Your task to perform on an android device: install app "Google Play Music" Image 0: 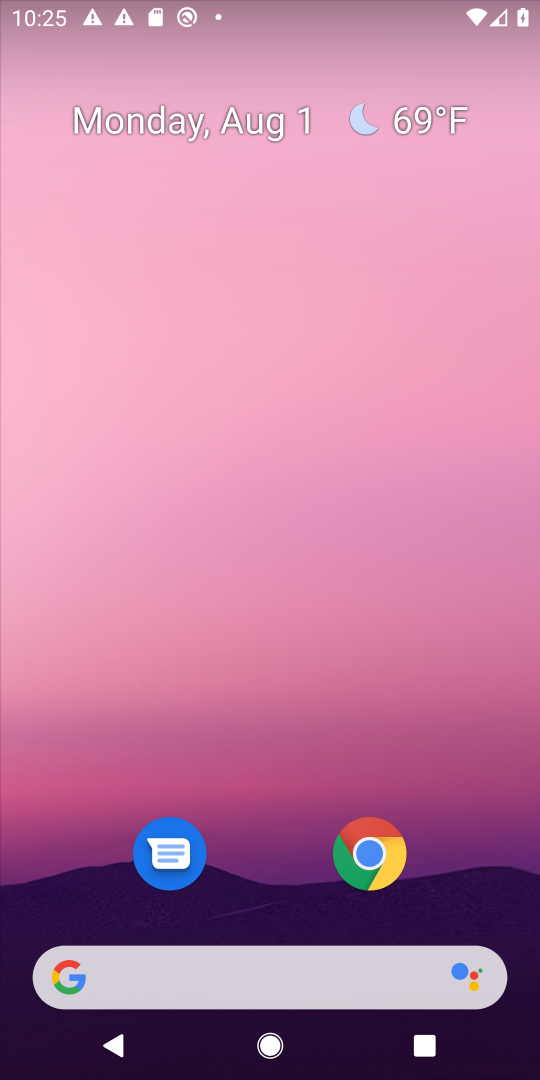
Step 0: drag from (250, 866) to (342, 78)
Your task to perform on an android device: install app "Google Play Music" Image 1: 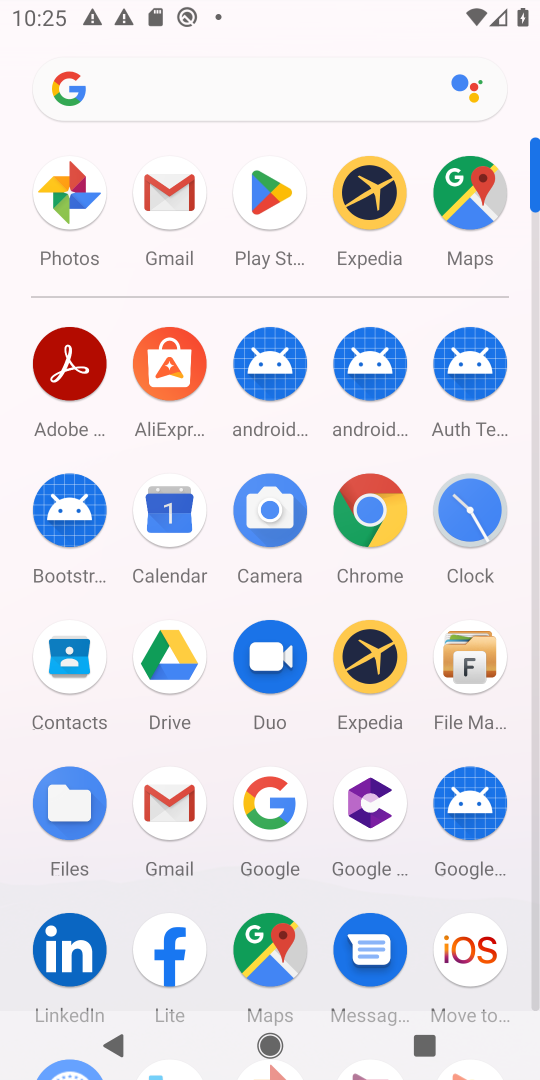
Step 1: drag from (230, 1012) to (327, 332)
Your task to perform on an android device: install app "Google Play Music" Image 2: 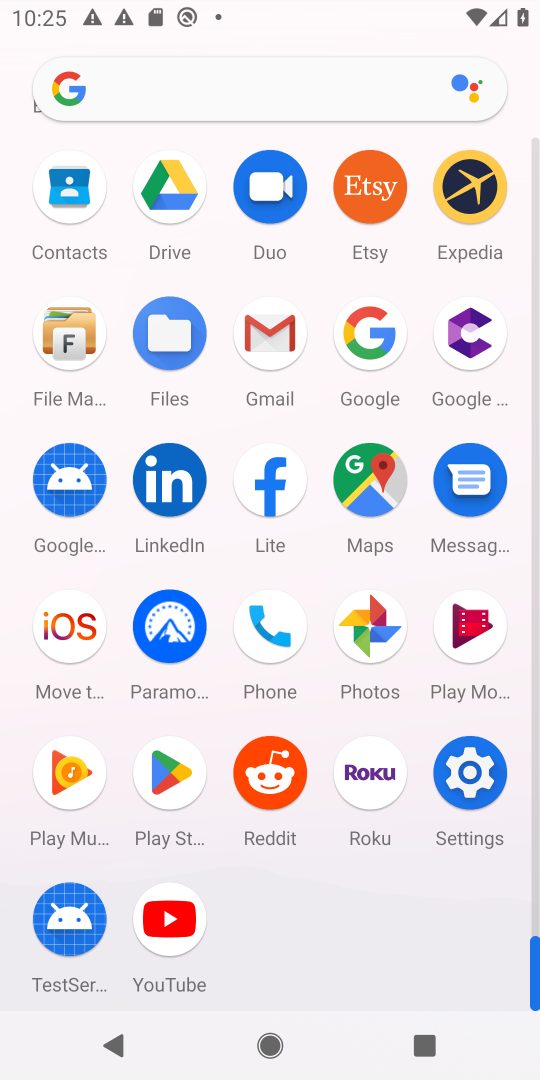
Step 2: click (151, 781)
Your task to perform on an android device: install app "Google Play Music" Image 3: 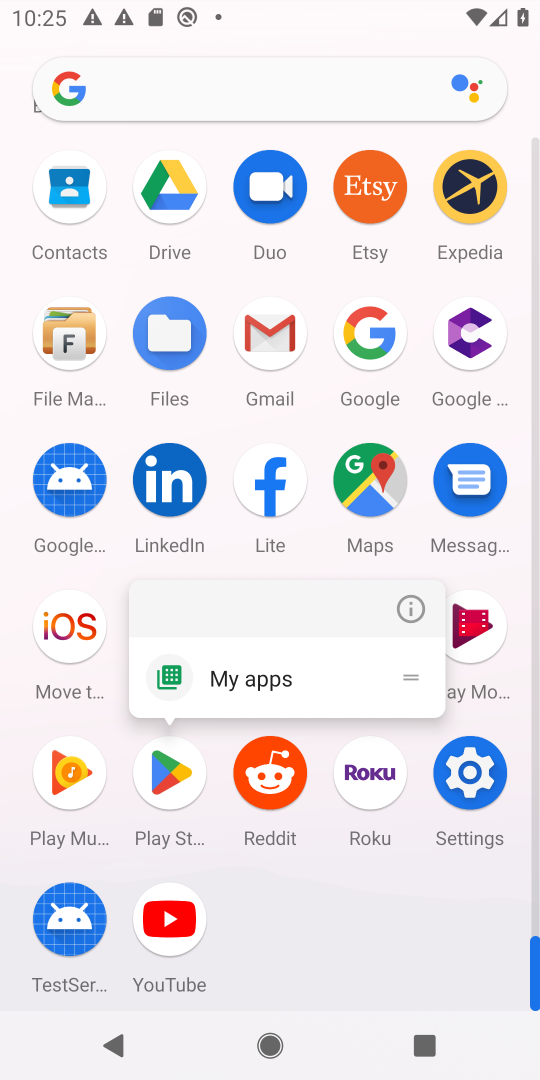
Step 3: click (399, 603)
Your task to perform on an android device: install app "Google Play Music" Image 4: 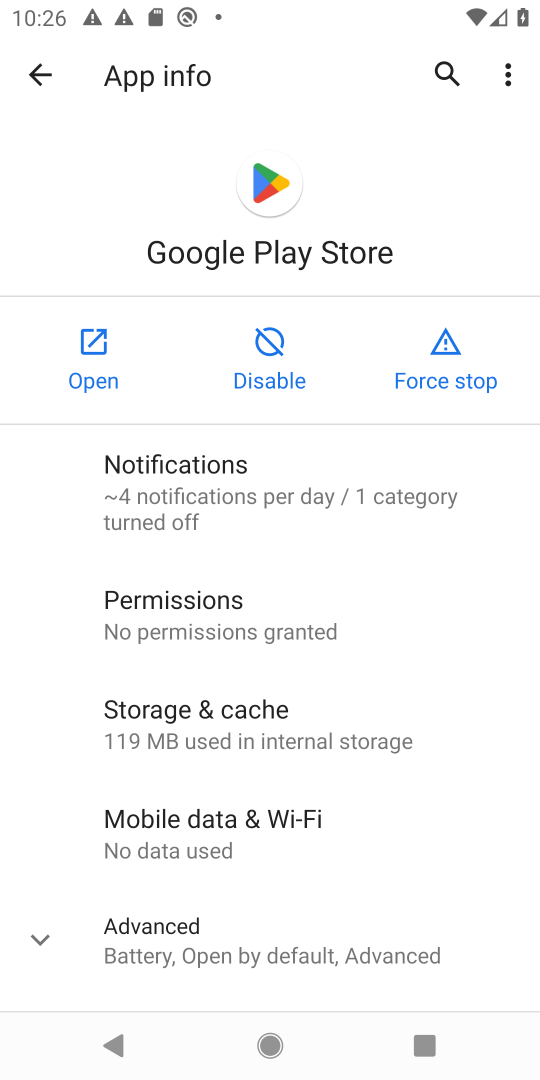
Step 4: click (81, 352)
Your task to perform on an android device: install app "Google Play Music" Image 5: 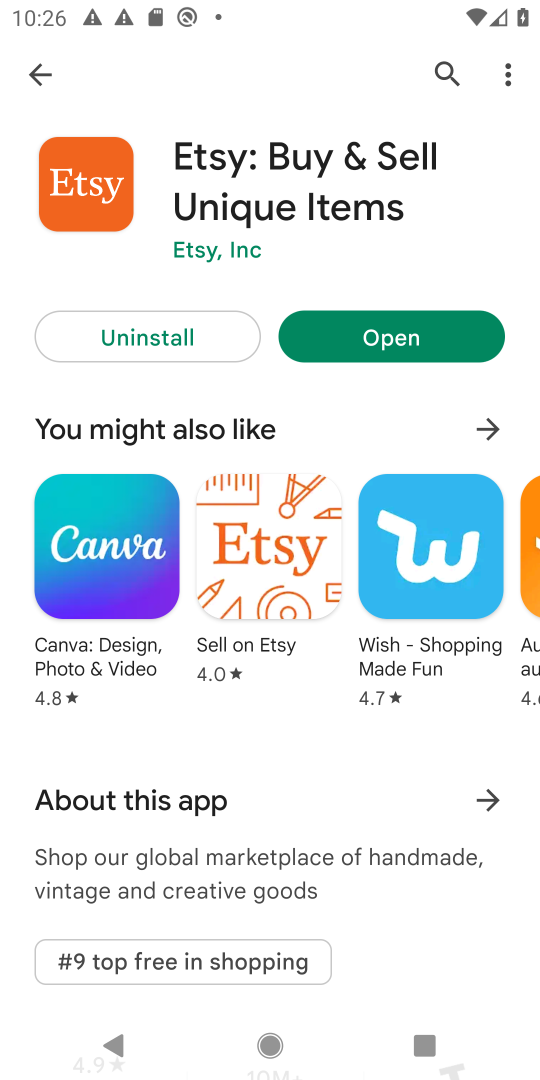
Step 5: click (453, 68)
Your task to perform on an android device: install app "Google Play Music" Image 6: 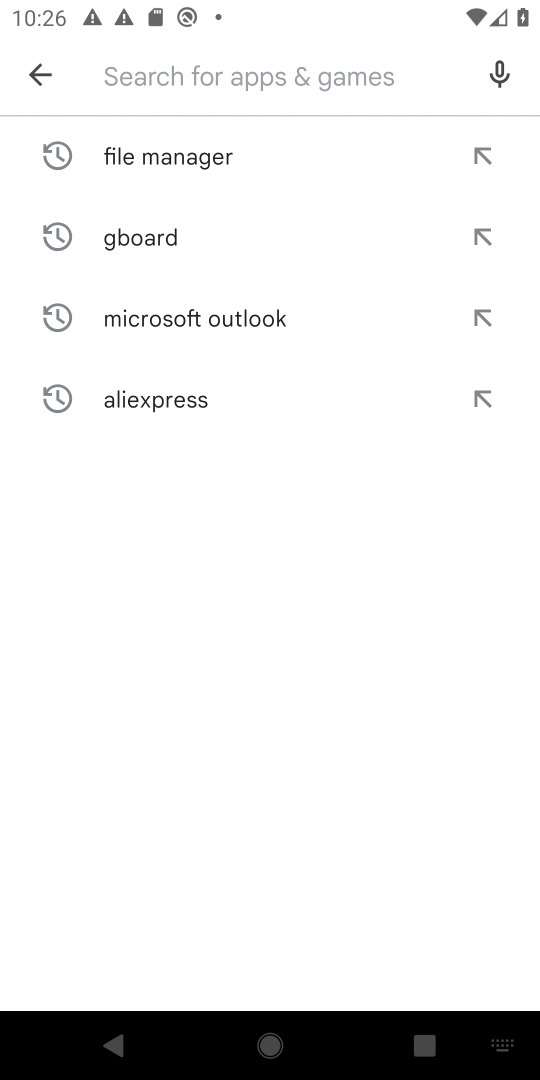
Step 6: type "Google Play Music"
Your task to perform on an android device: install app "Google Play Music" Image 7: 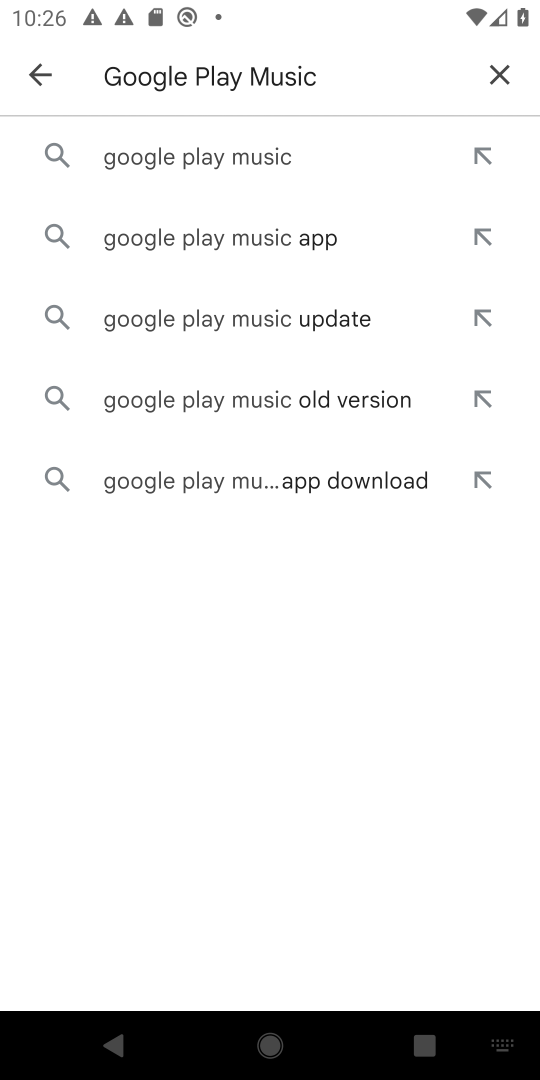
Step 7: click (157, 157)
Your task to perform on an android device: install app "Google Play Music" Image 8: 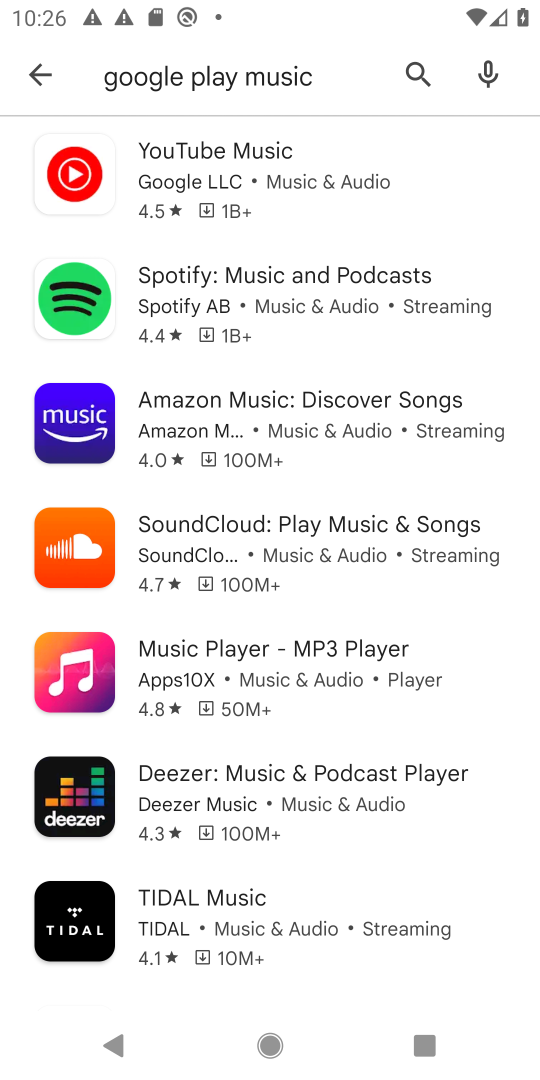
Step 8: click (255, 165)
Your task to perform on an android device: install app "Google Play Music" Image 9: 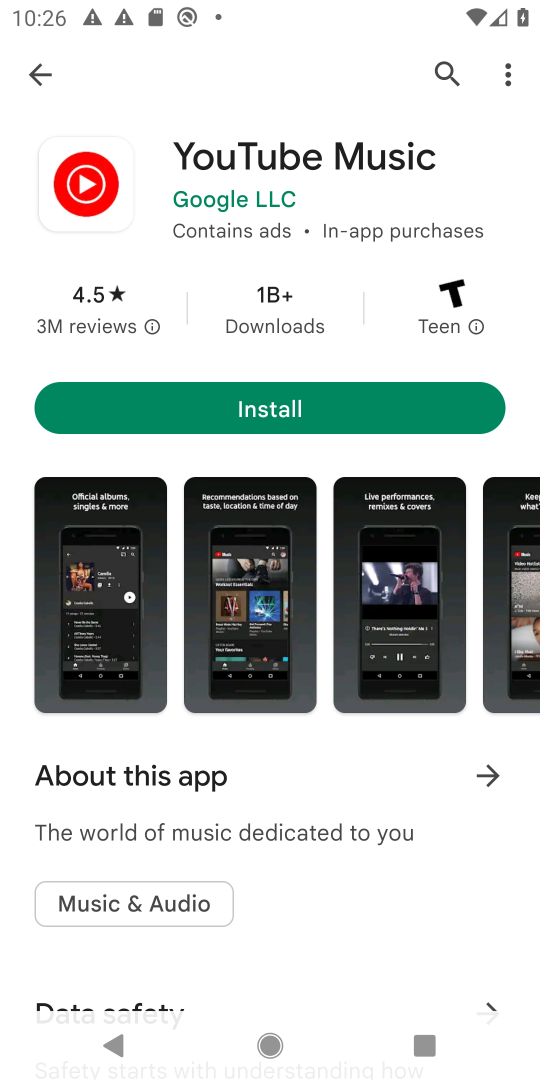
Step 9: drag from (315, 221) to (336, 836)
Your task to perform on an android device: install app "Google Play Music" Image 10: 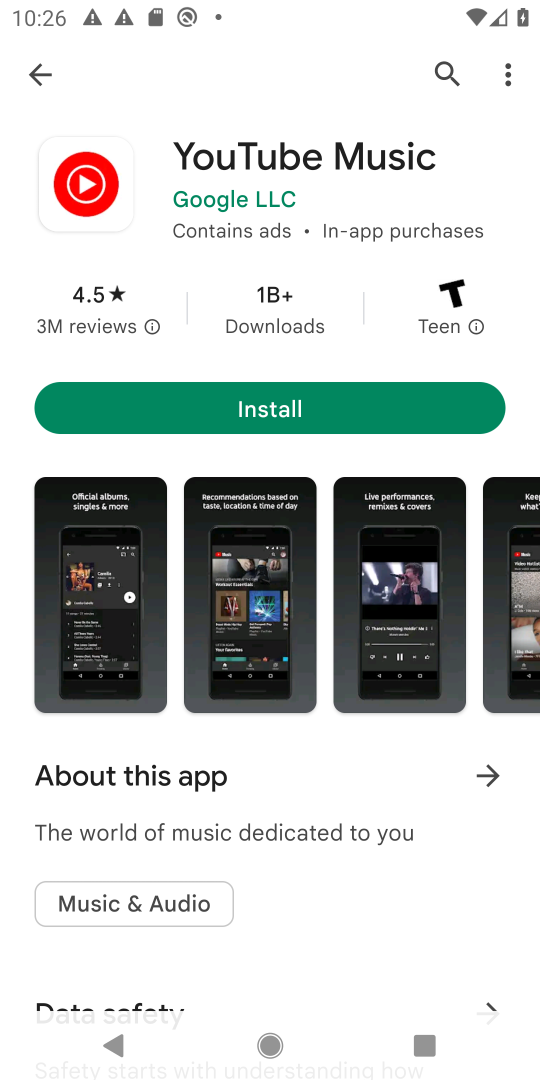
Step 10: drag from (346, 194) to (356, 715)
Your task to perform on an android device: install app "Google Play Music" Image 11: 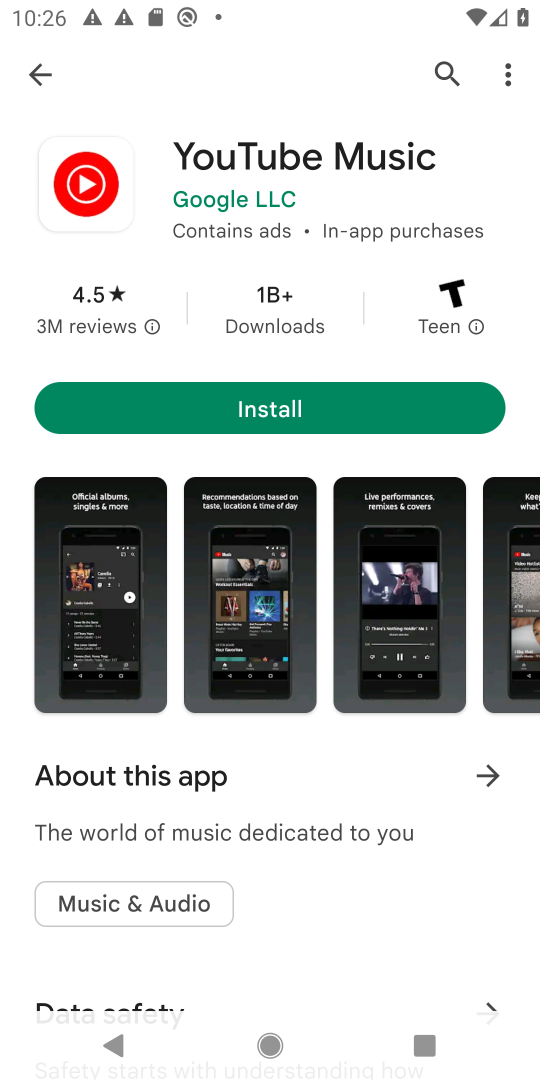
Step 11: drag from (310, 184) to (335, 845)
Your task to perform on an android device: install app "Google Play Music" Image 12: 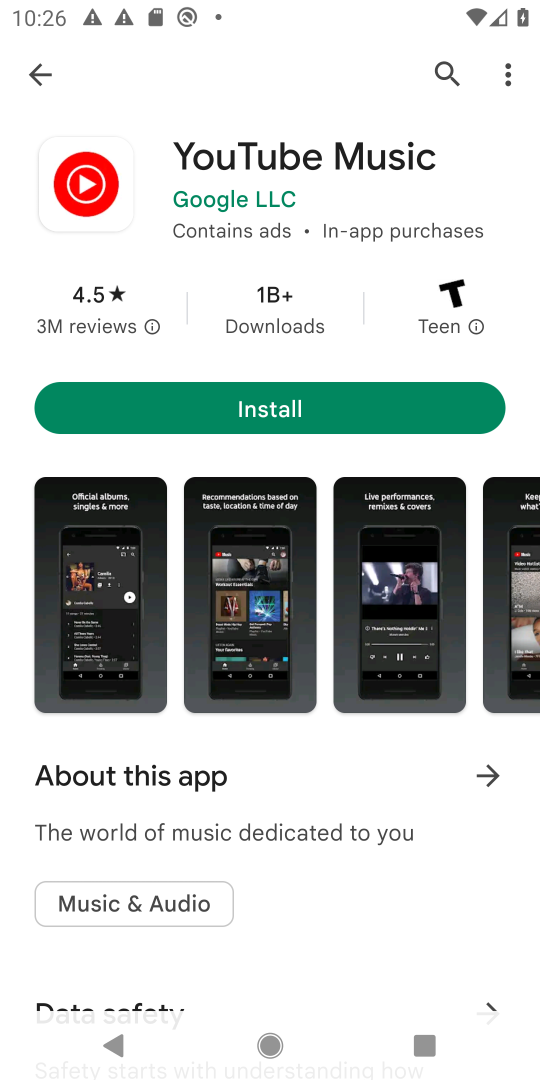
Step 12: click (441, 77)
Your task to perform on an android device: install app "Google Play Music" Image 13: 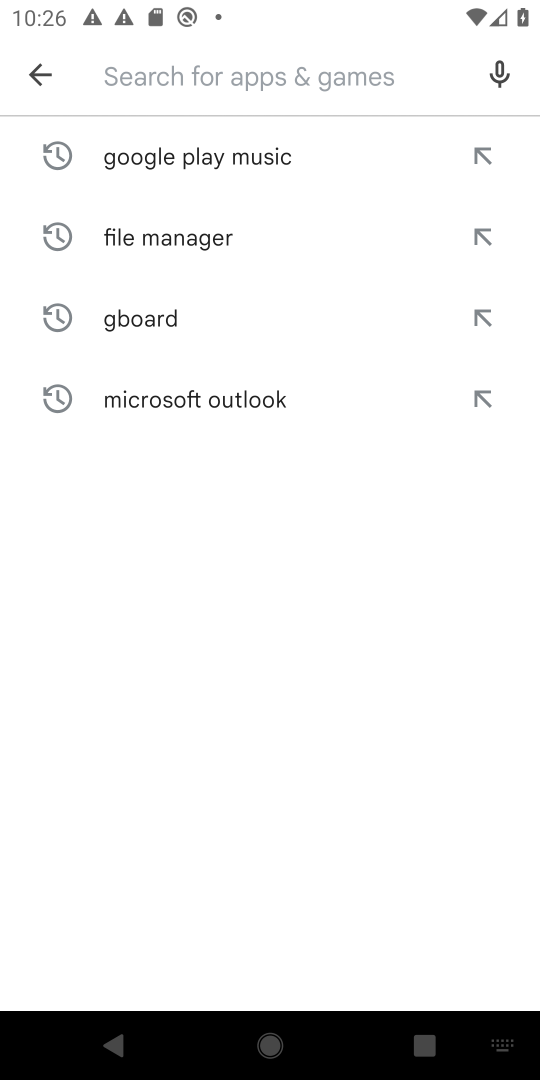
Step 13: type "Google Play Music"
Your task to perform on an android device: install app "Google Play Music" Image 14: 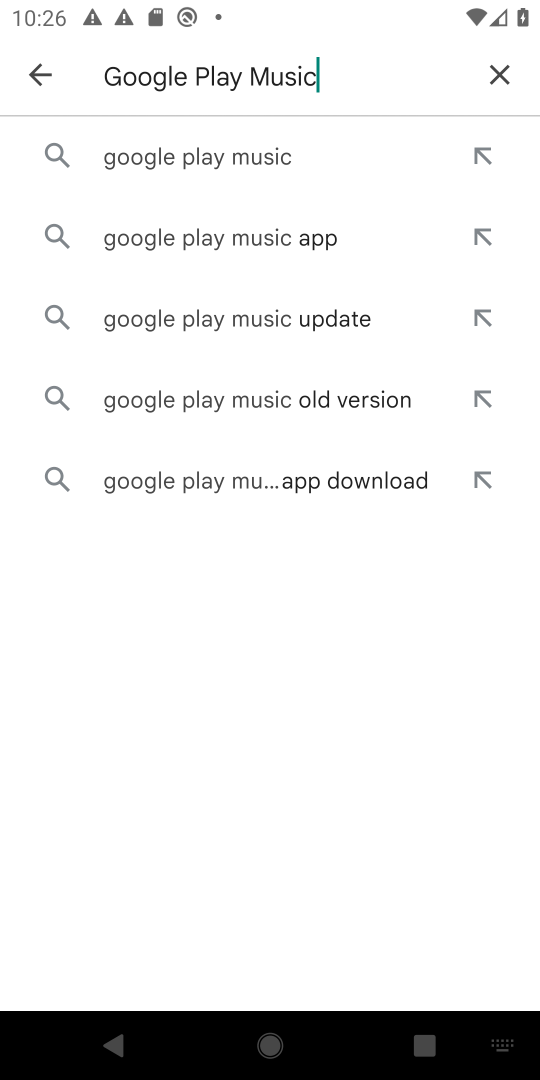
Step 14: type ""
Your task to perform on an android device: install app "Google Play Music" Image 15: 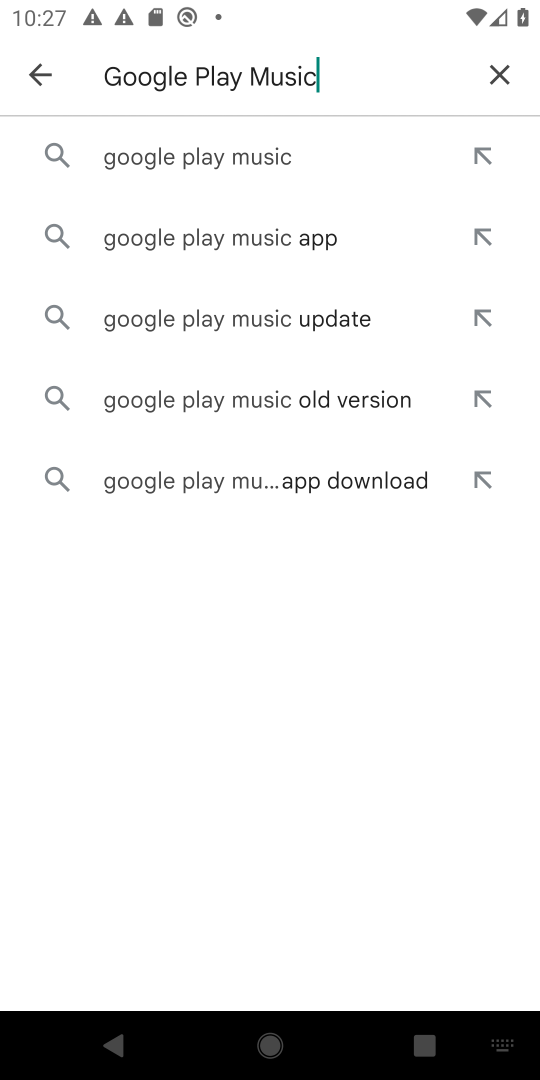
Step 15: click (250, 163)
Your task to perform on an android device: install app "Google Play Music" Image 16: 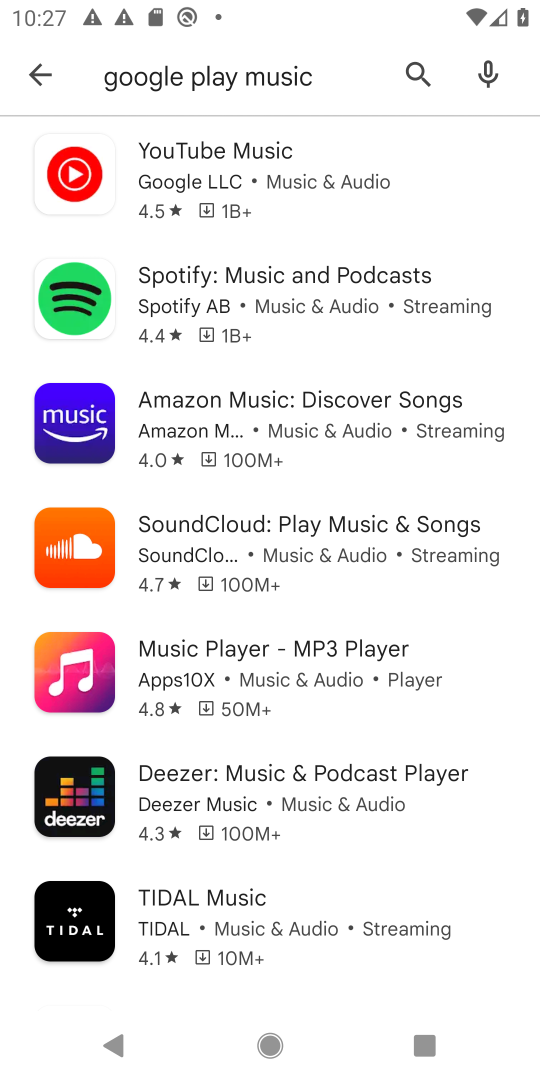
Step 16: task complete